Your task to perform on an android device: toggle javascript in the chrome app Image 0: 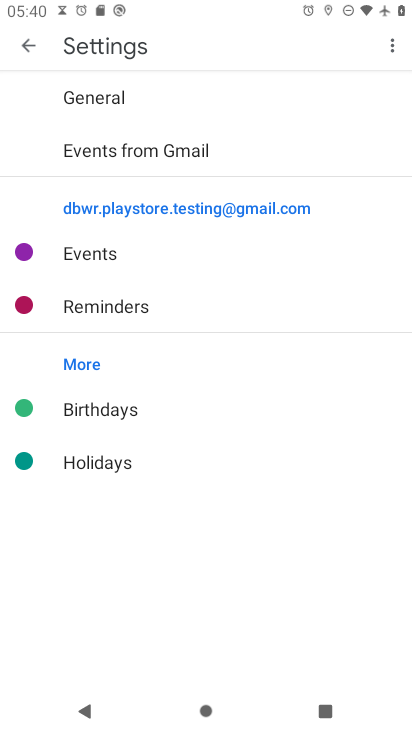
Step 0: press back button
Your task to perform on an android device: toggle javascript in the chrome app Image 1: 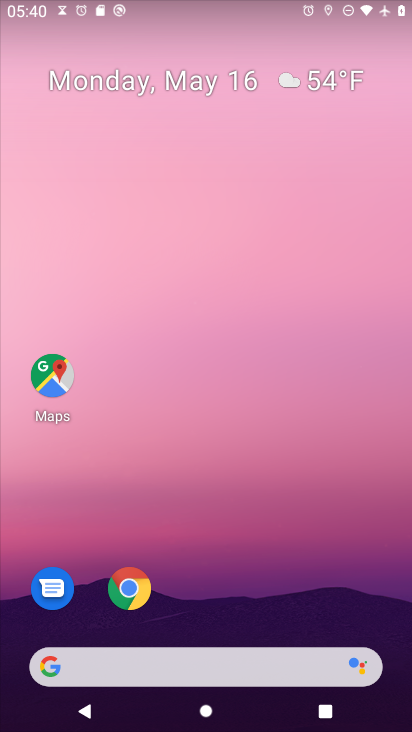
Step 1: drag from (156, 514) to (162, 84)
Your task to perform on an android device: toggle javascript in the chrome app Image 2: 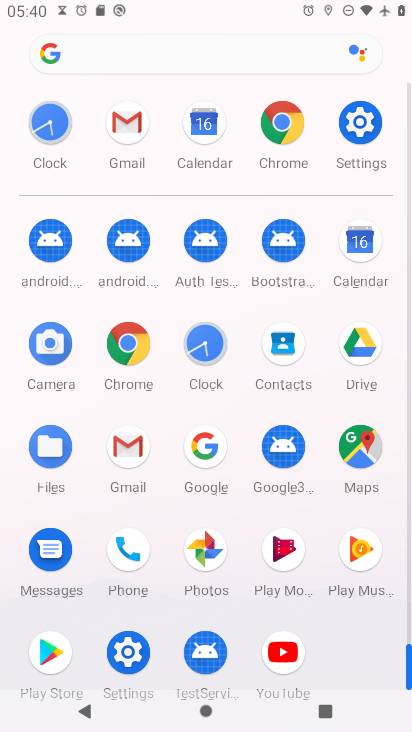
Step 2: drag from (5, 450) to (19, 212)
Your task to perform on an android device: toggle javascript in the chrome app Image 3: 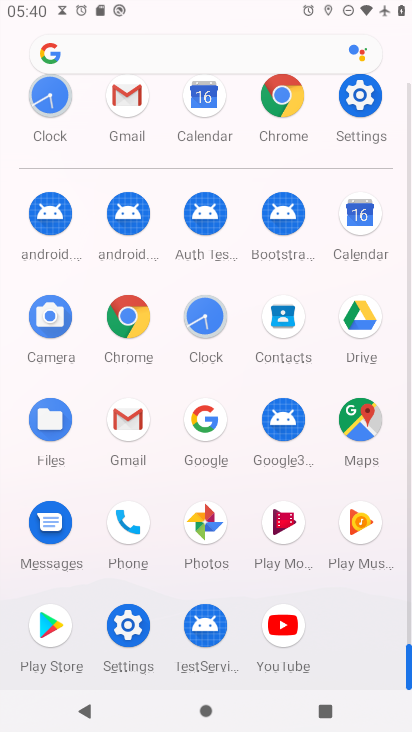
Step 3: click (129, 312)
Your task to perform on an android device: toggle javascript in the chrome app Image 4: 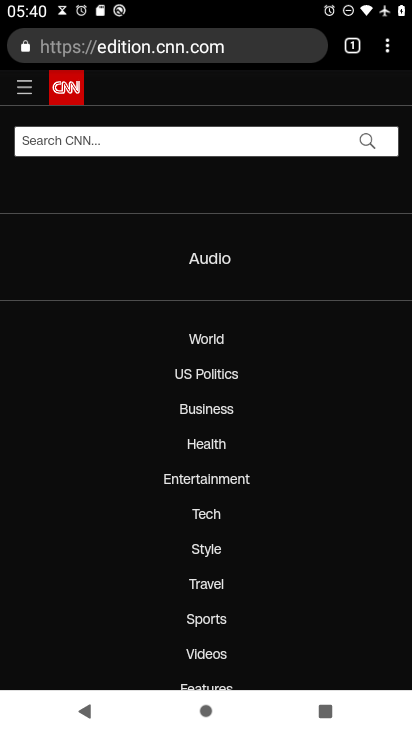
Step 4: drag from (387, 46) to (243, 543)
Your task to perform on an android device: toggle javascript in the chrome app Image 5: 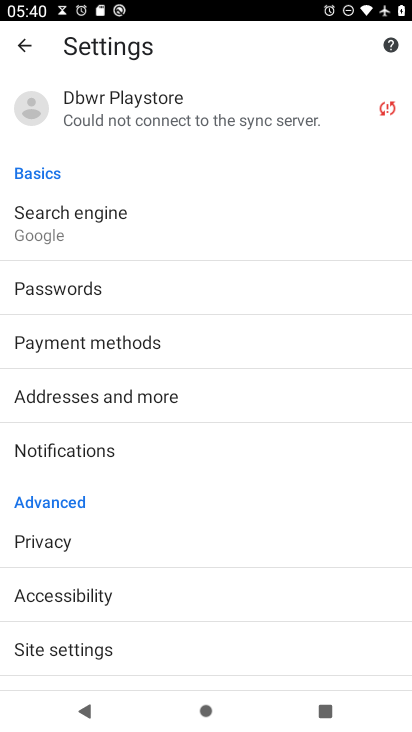
Step 5: drag from (228, 586) to (228, 206)
Your task to perform on an android device: toggle javascript in the chrome app Image 6: 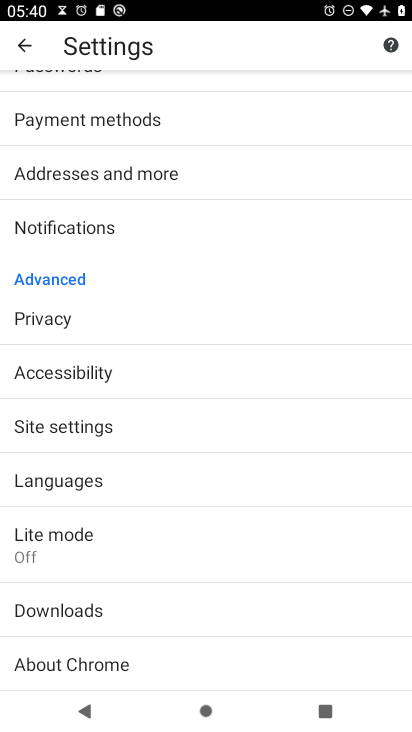
Step 6: click (134, 427)
Your task to perform on an android device: toggle javascript in the chrome app Image 7: 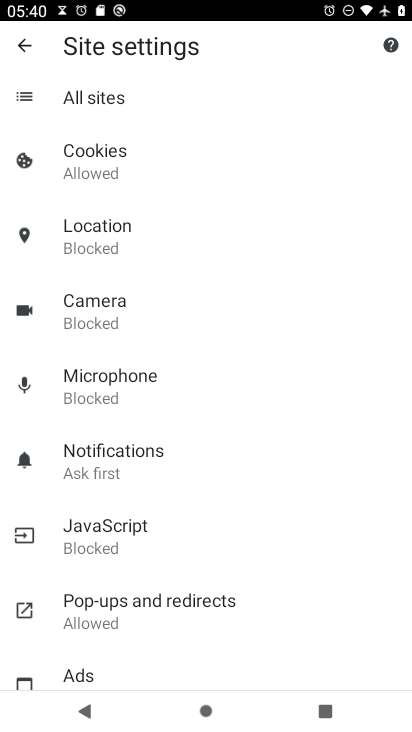
Step 7: click (137, 541)
Your task to perform on an android device: toggle javascript in the chrome app Image 8: 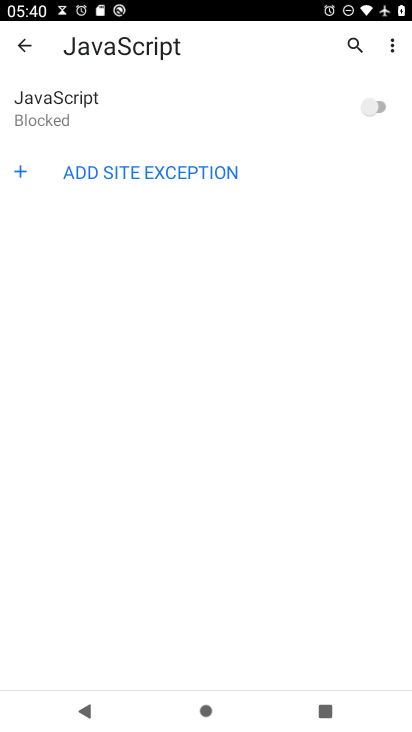
Step 8: click (378, 99)
Your task to perform on an android device: toggle javascript in the chrome app Image 9: 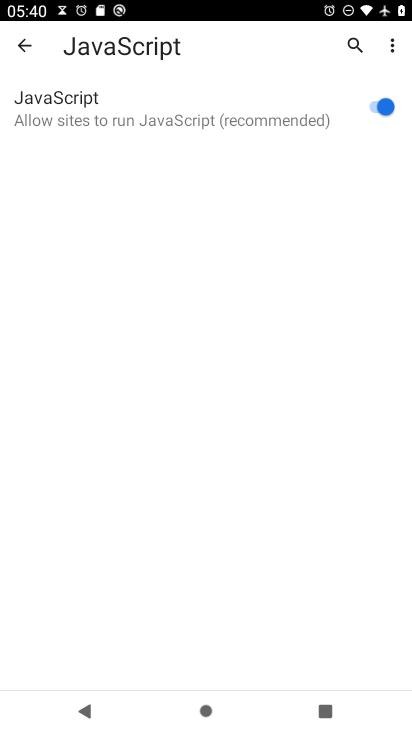
Step 9: task complete